Your task to perform on an android device: Show me productivity apps on the Play Store Image 0: 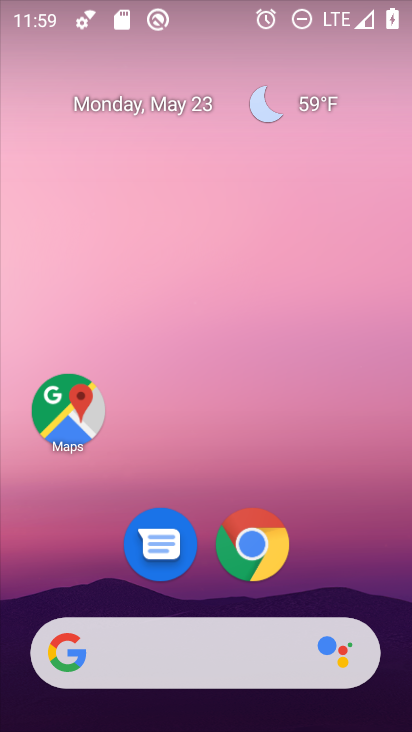
Step 0: drag from (409, 650) to (259, 58)
Your task to perform on an android device: Show me productivity apps on the Play Store Image 1: 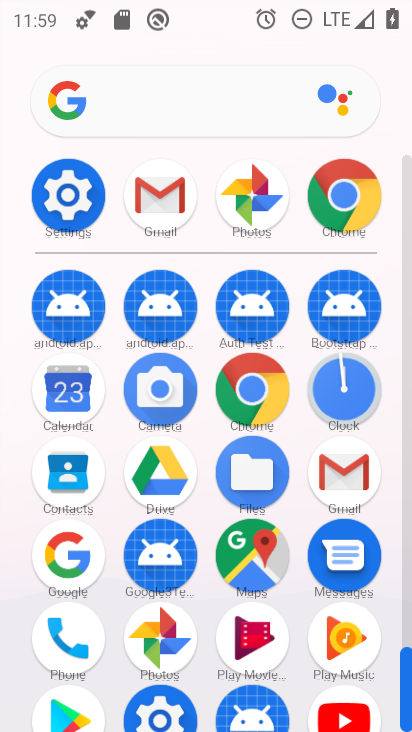
Step 1: drag from (406, 593) to (402, 497)
Your task to perform on an android device: Show me productivity apps on the Play Store Image 2: 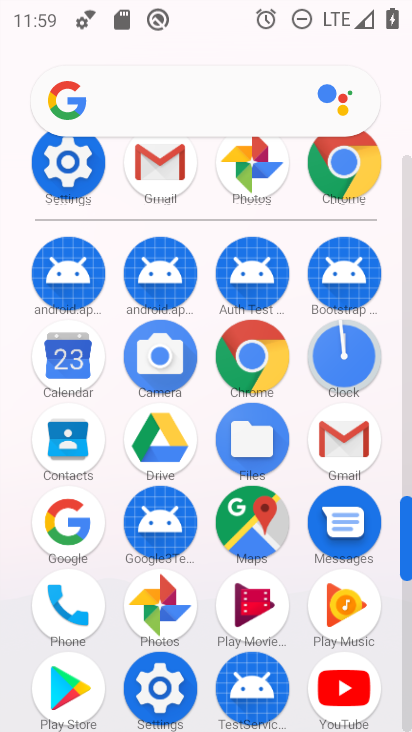
Step 2: click (82, 679)
Your task to perform on an android device: Show me productivity apps on the Play Store Image 3: 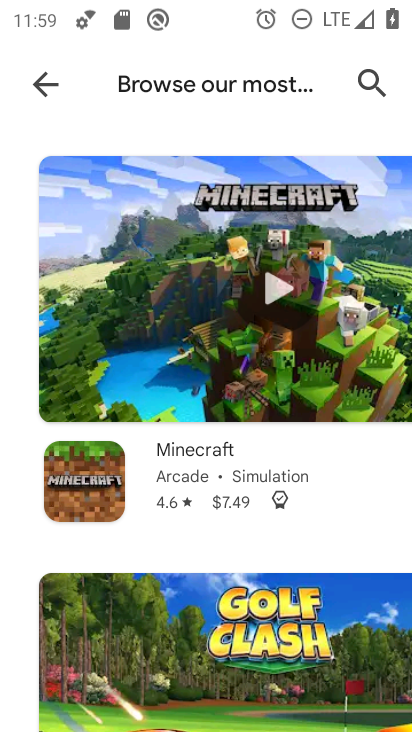
Step 3: press back button
Your task to perform on an android device: Show me productivity apps on the Play Store Image 4: 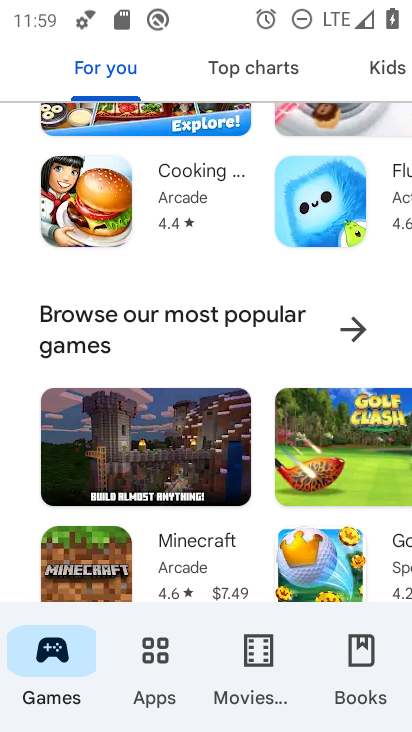
Step 4: drag from (234, 558) to (218, 173)
Your task to perform on an android device: Show me productivity apps on the Play Store Image 5: 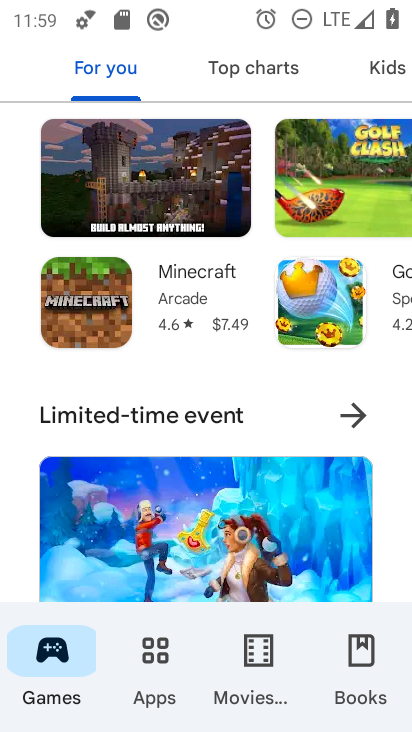
Step 5: drag from (237, 313) to (232, 638)
Your task to perform on an android device: Show me productivity apps on the Play Store Image 6: 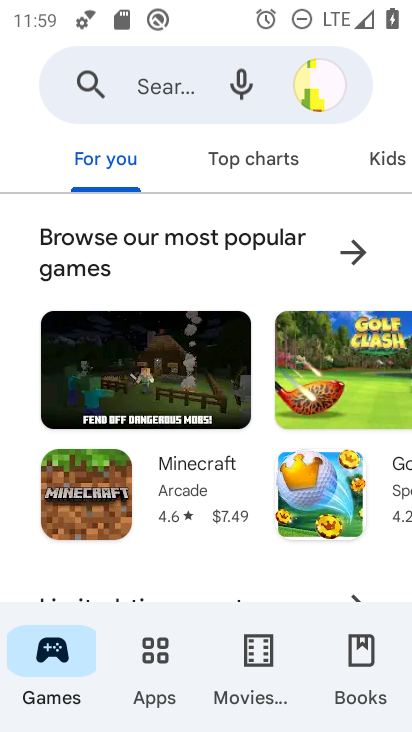
Step 6: click (155, 657)
Your task to perform on an android device: Show me productivity apps on the Play Store Image 7: 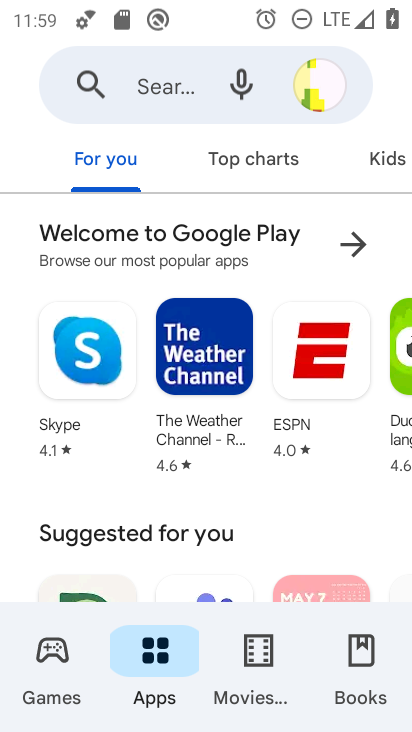
Step 7: drag from (258, 569) to (261, 132)
Your task to perform on an android device: Show me productivity apps on the Play Store Image 8: 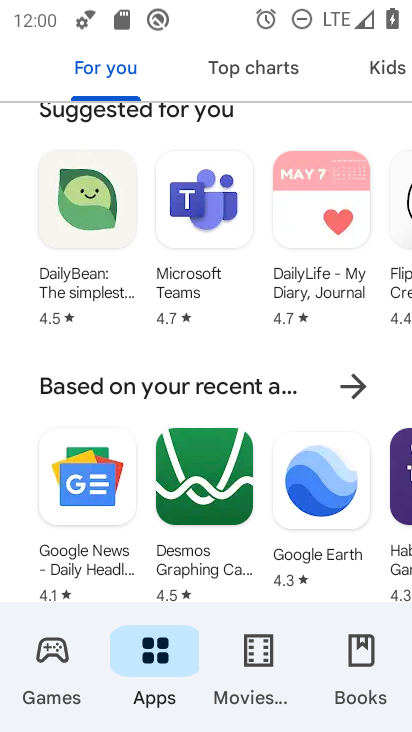
Step 8: drag from (396, 76) to (204, 86)
Your task to perform on an android device: Show me productivity apps on the Play Store Image 9: 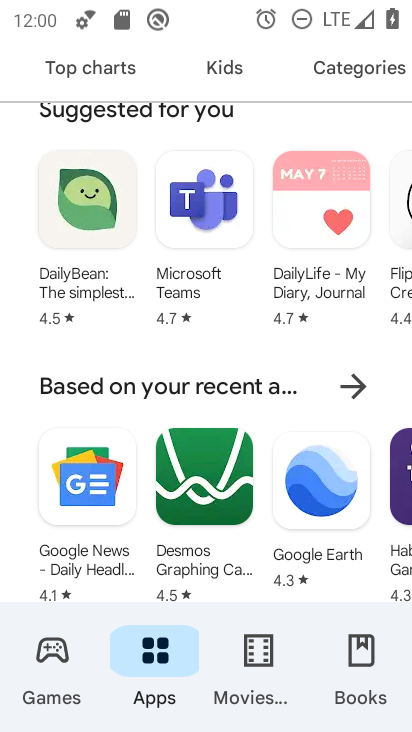
Step 9: click (341, 65)
Your task to perform on an android device: Show me productivity apps on the Play Store Image 10: 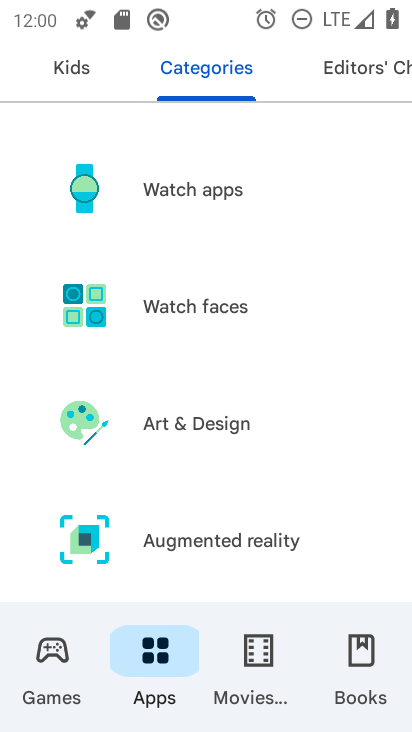
Step 10: drag from (271, 511) to (258, 152)
Your task to perform on an android device: Show me productivity apps on the Play Store Image 11: 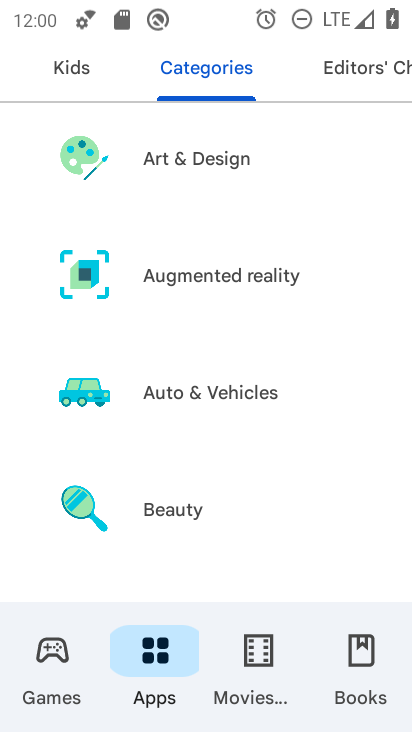
Step 11: drag from (263, 581) to (331, 153)
Your task to perform on an android device: Show me productivity apps on the Play Store Image 12: 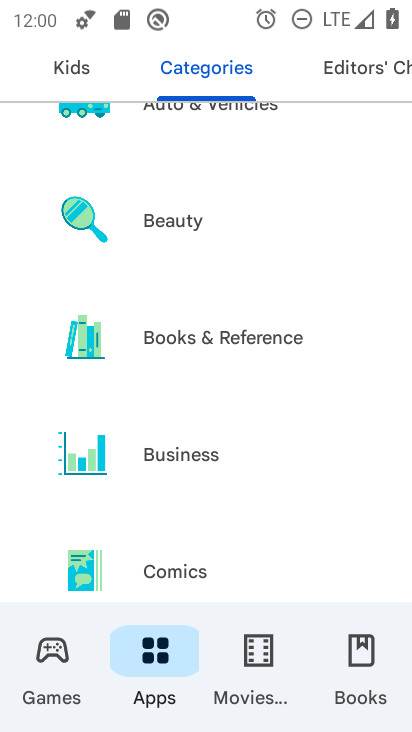
Step 12: drag from (257, 533) to (314, 46)
Your task to perform on an android device: Show me productivity apps on the Play Store Image 13: 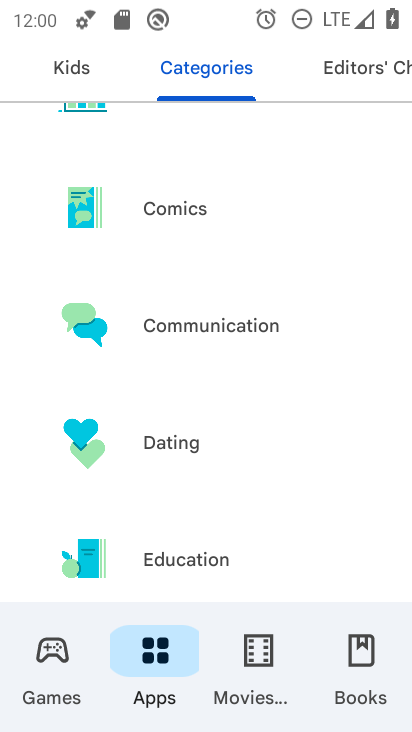
Step 13: drag from (270, 531) to (305, 37)
Your task to perform on an android device: Show me productivity apps on the Play Store Image 14: 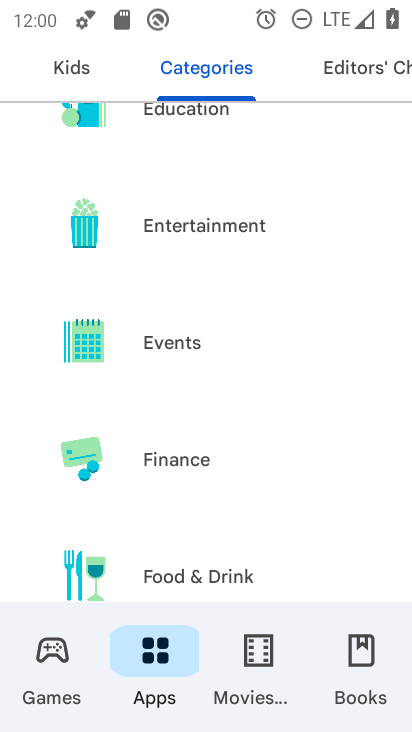
Step 14: drag from (248, 526) to (274, 77)
Your task to perform on an android device: Show me productivity apps on the Play Store Image 15: 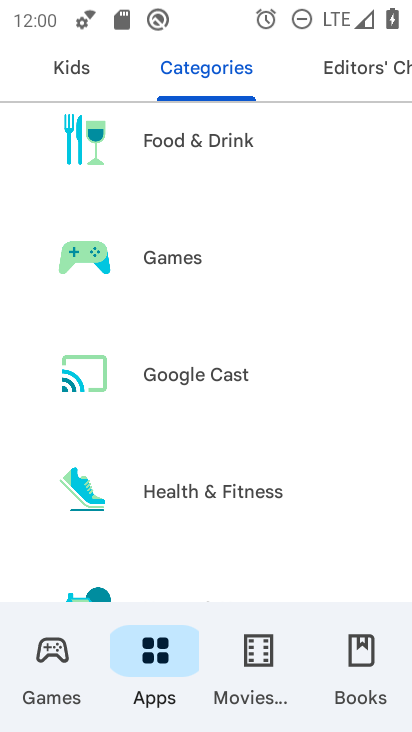
Step 15: drag from (282, 560) to (291, 92)
Your task to perform on an android device: Show me productivity apps on the Play Store Image 16: 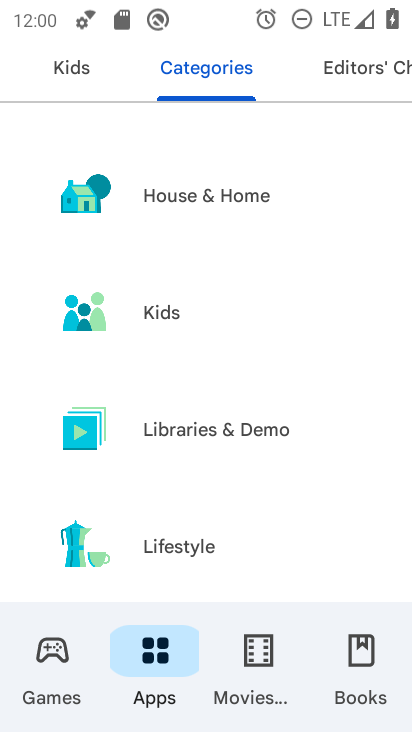
Step 16: drag from (267, 555) to (284, 116)
Your task to perform on an android device: Show me productivity apps on the Play Store Image 17: 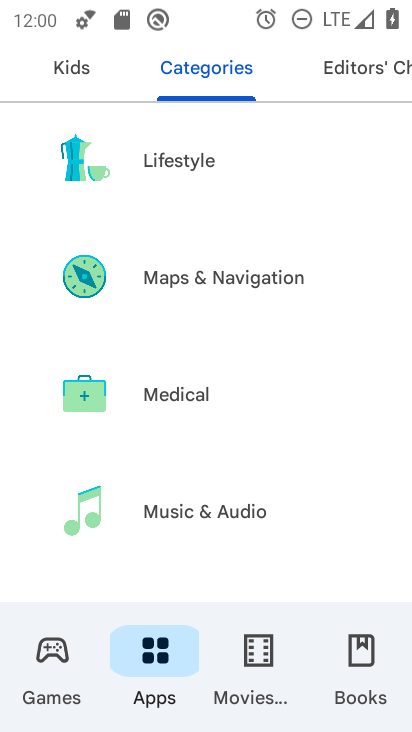
Step 17: drag from (296, 540) to (298, 133)
Your task to perform on an android device: Show me productivity apps on the Play Store Image 18: 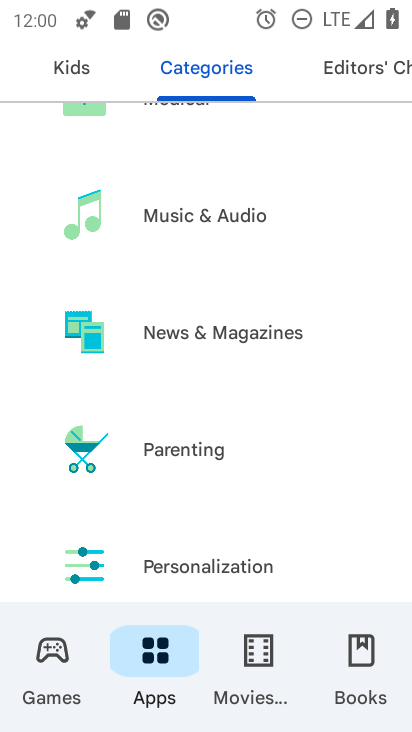
Step 18: drag from (268, 541) to (294, 218)
Your task to perform on an android device: Show me productivity apps on the Play Store Image 19: 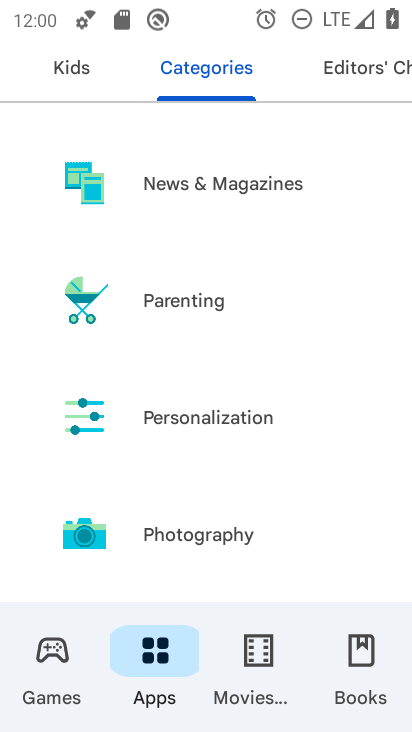
Step 19: drag from (266, 504) to (307, 86)
Your task to perform on an android device: Show me productivity apps on the Play Store Image 20: 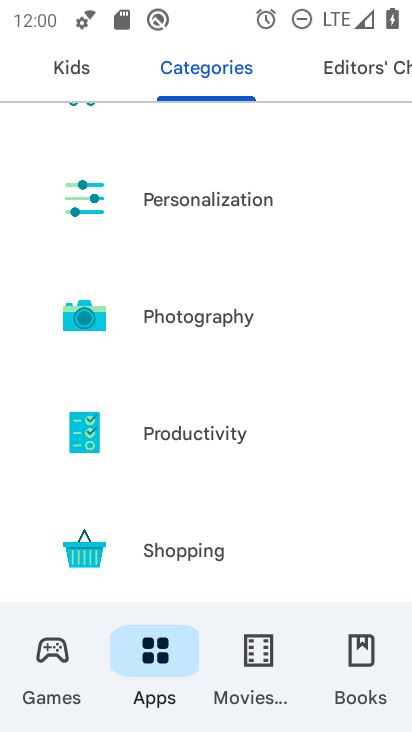
Step 20: click (195, 437)
Your task to perform on an android device: Show me productivity apps on the Play Store Image 21: 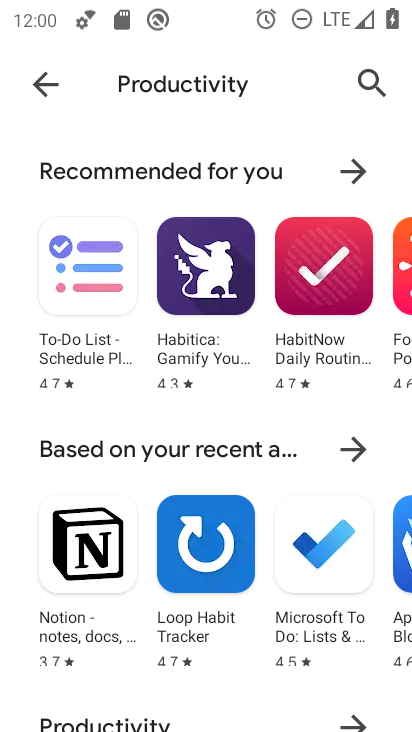
Step 21: drag from (260, 646) to (278, 31)
Your task to perform on an android device: Show me productivity apps on the Play Store Image 22: 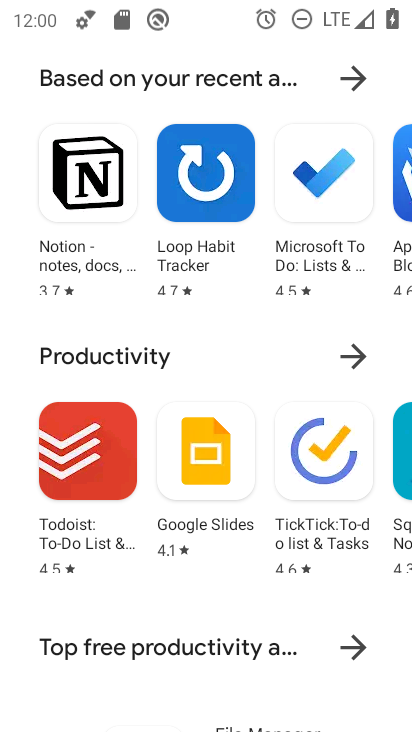
Step 22: drag from (307, 639) to (250, 288)
Your task to perform on an android device: Show me productivity apps on the Play Store Image 23: 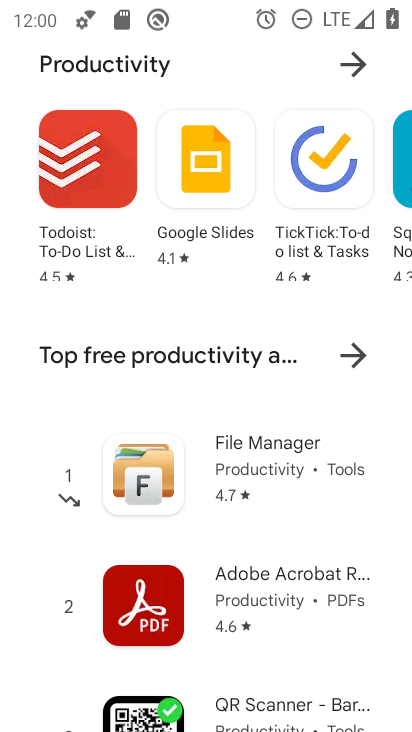
Step 23: click (353, 348)
Your task to perform on an android device: Show me productivity apps on the Play Store Image 24: 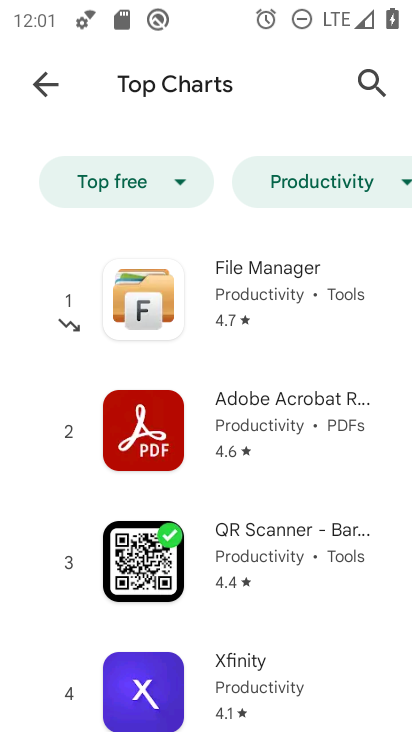
Step 24: task complete